Your task to perform on an android device: set the timer Image 0: 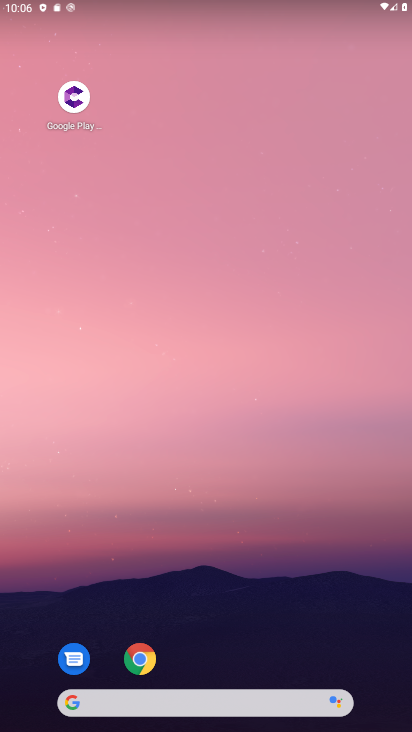
Step 0: drag from (233, 665) to (304, 202)
Your task to perform on an android device: set the timer Image 1: 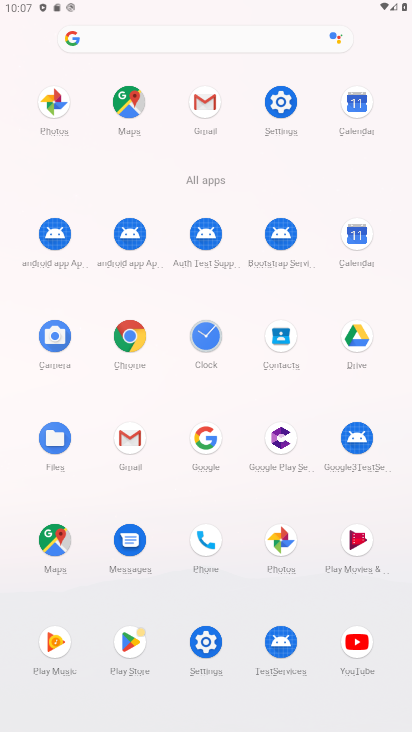
Step 1: click (211, 345)
Your task to perform on an android device: set the timer Image 2: 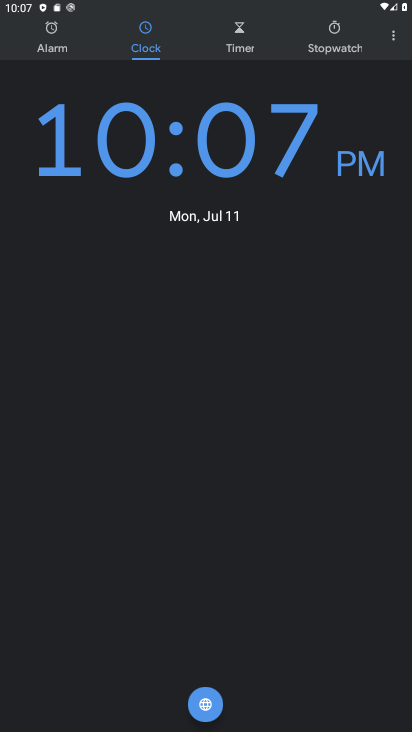
Step 2: click (245, 42)
Your task to perform on an android device: set the timer Image 3: 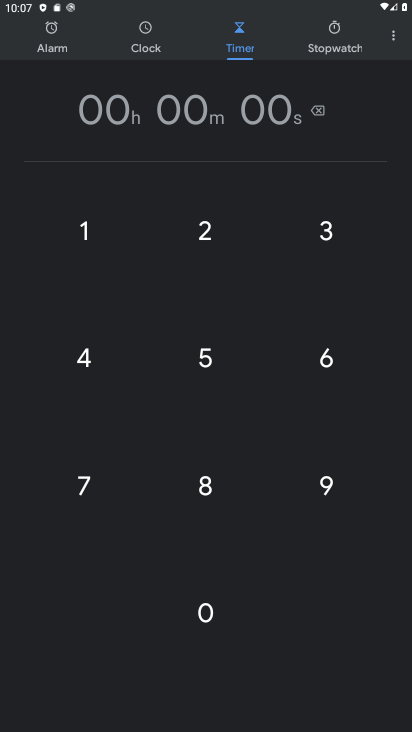
Step 3: click (243, 234)
Your task to perform on an android device: set the timer Image 4: 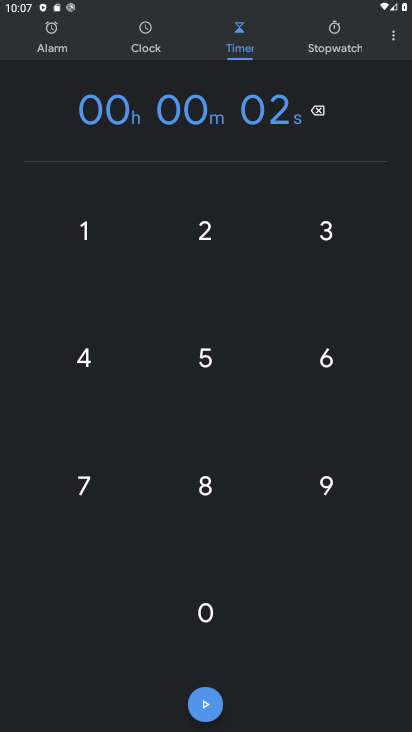
Step 4: click (221, 349)
Your task to perform on an android device: set the timer Image 5: 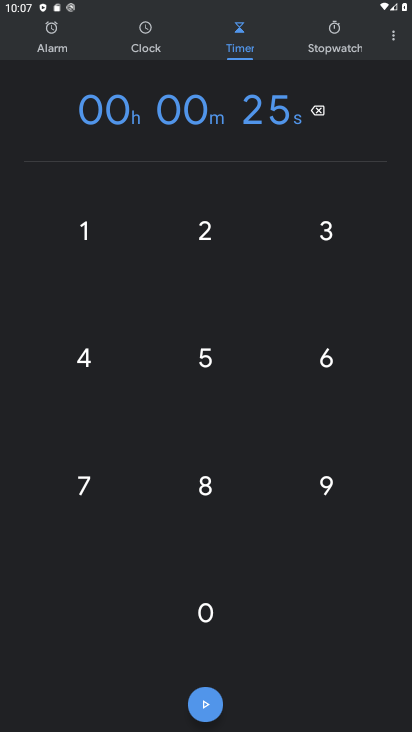
Step 5: click (204, 244)
Your task to perform on an android device: set the timer Image 6: 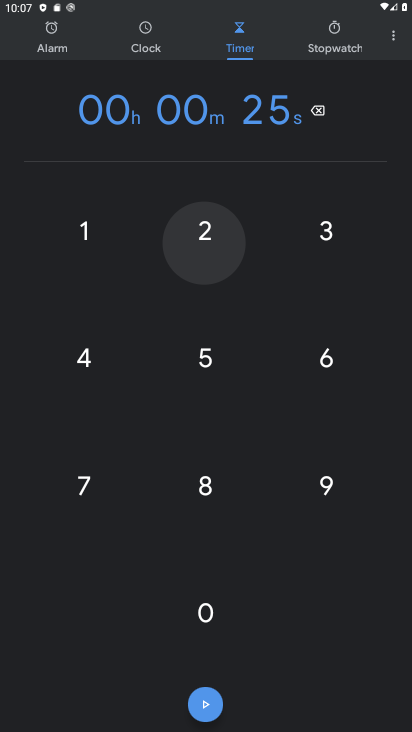
Step 6: click (204, 244)
Your task to perform on an android device: set the timer Image 7: 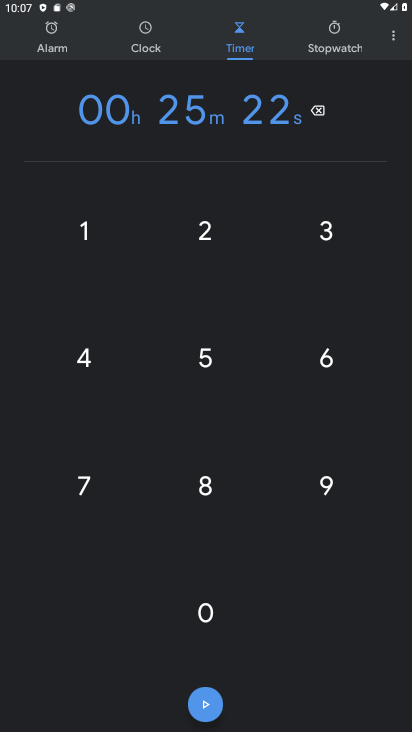
Step 7: click (211, 701)
Your task to perform on an android device: set the timer Image 8: 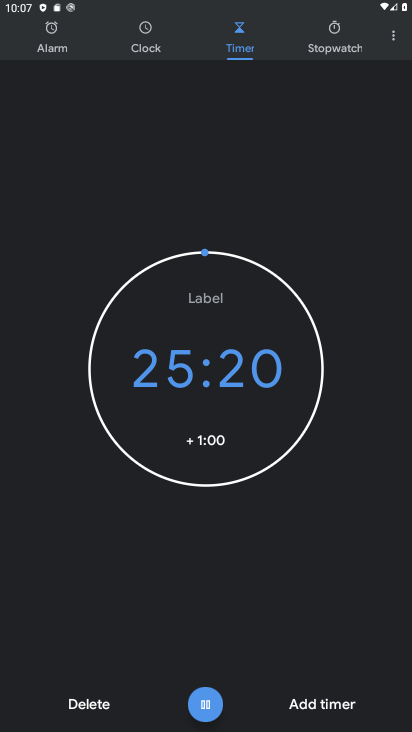
Step 8: task complete